Your task to perform on an android device: toggle javascript in the chrome app Image 0: 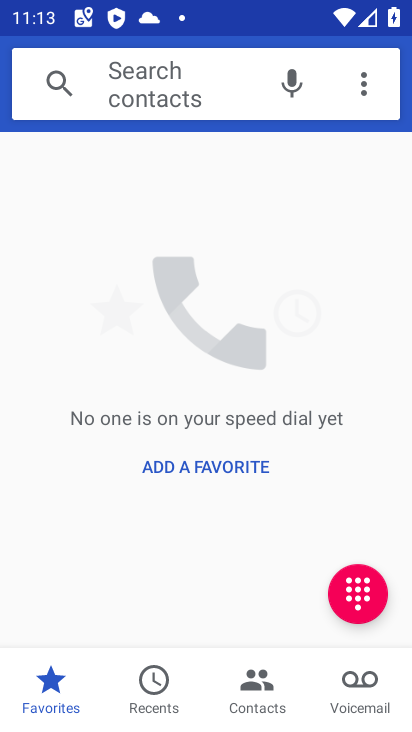
Step 0: click (368, 81)
Your task to perform on an android device: toggle javascript in the chrome app Image 1: 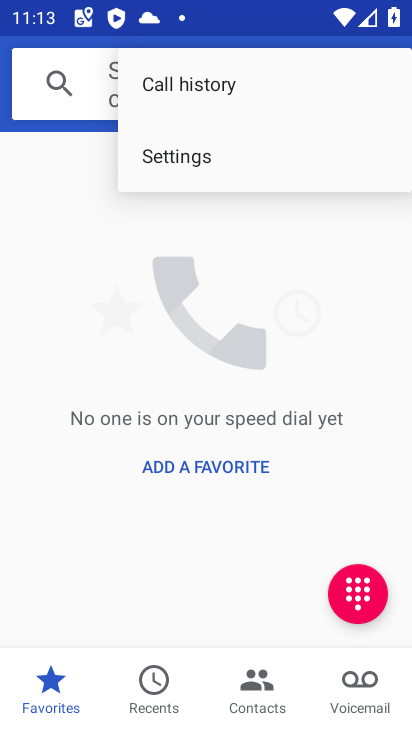
Step 1: click (358, 306)
Your task to perform on an android device: toggle javascript in the chrome app Image 2: 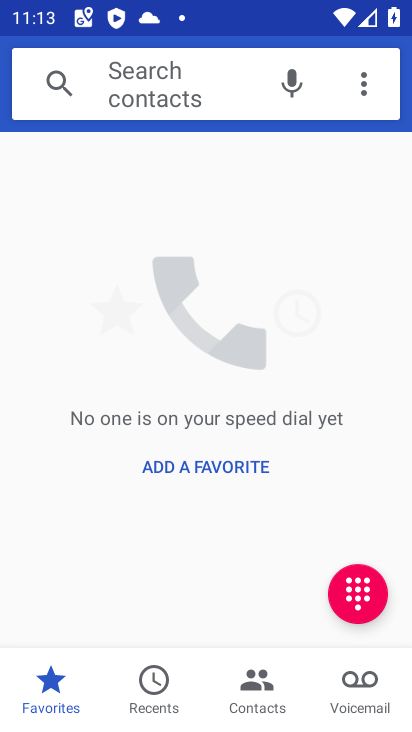
Step 2: press home button
Your task to perform on an android device: toggle javascript in the chrome app Image 3: 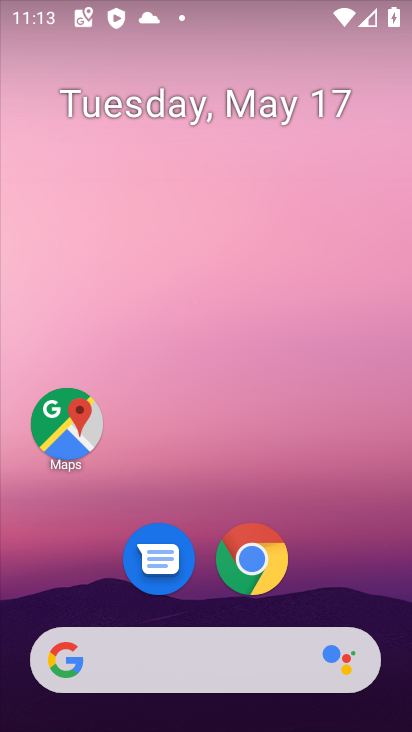
Step 3: drag from (289, 661) to (333, 123)
Your task to perform on an android device: toggle javascript in the chrome app Image 4: 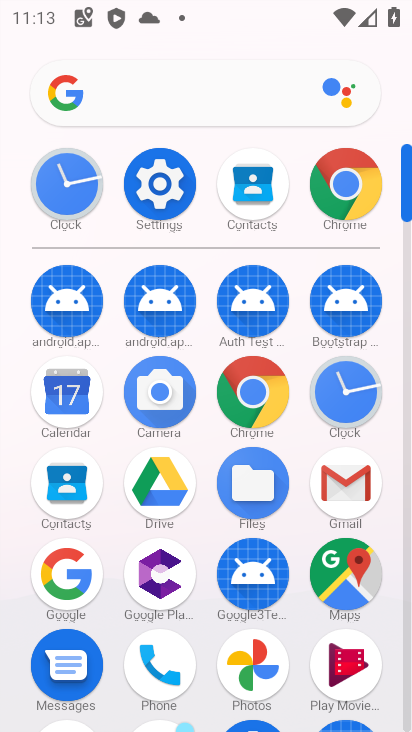
Step 4: click (360, 186)
Your task to perform on an android device: toggle javascript in the chrome app Image 5: 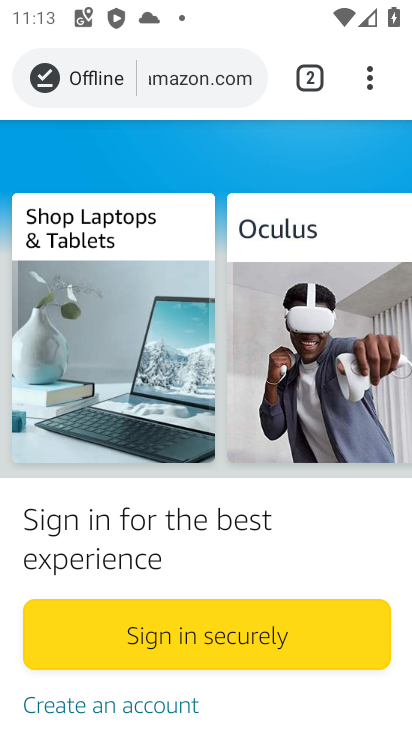
Step 5: click (365, 63)
Your task to perform on an android device: toggle javascript in the chrome app Image 6: 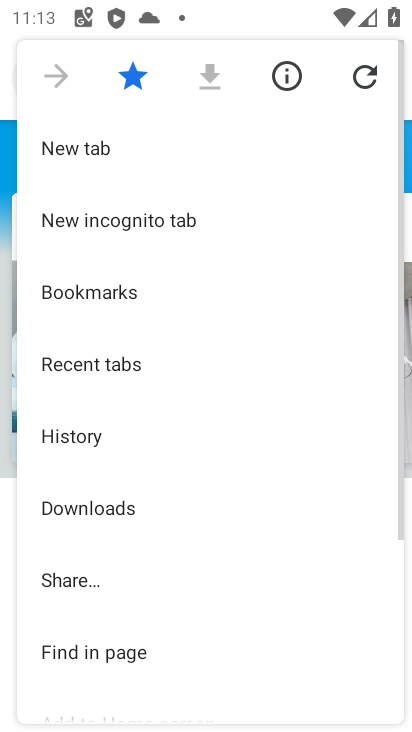
Step 6: drag from (207, 645) to (284, 264)
Your task to perform on an android device: toggle javascript in the chrome app Image 7: 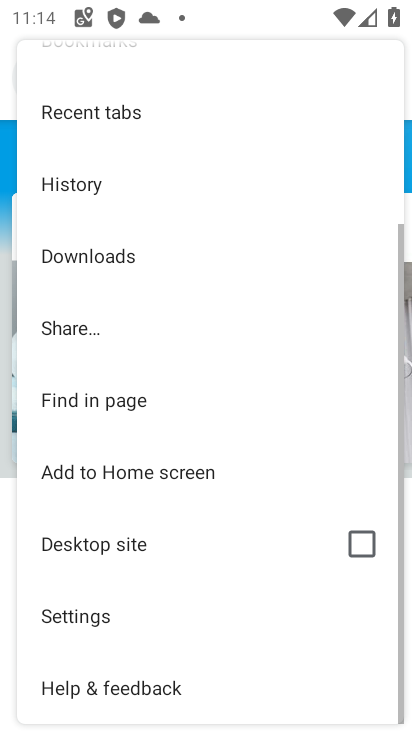
Step 7: click (122, 617)
Your task to perform on an android device: toggle javascript in the chrome app Image 8: 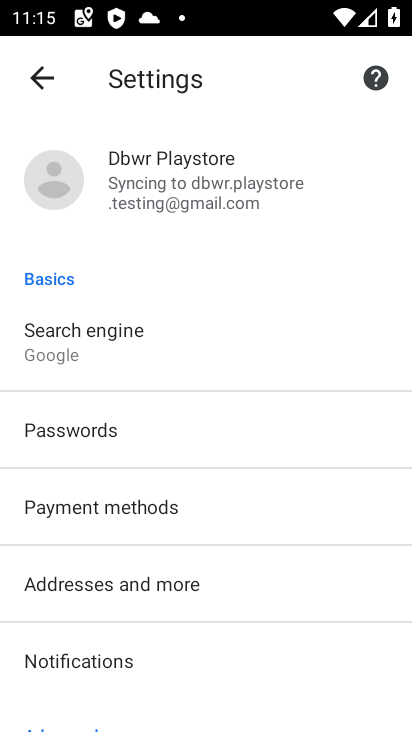
Step 8: drag from (259, 663) to (252, 113)
Your task to perform on an android device: toggle javascript in the chrome app Image 9: 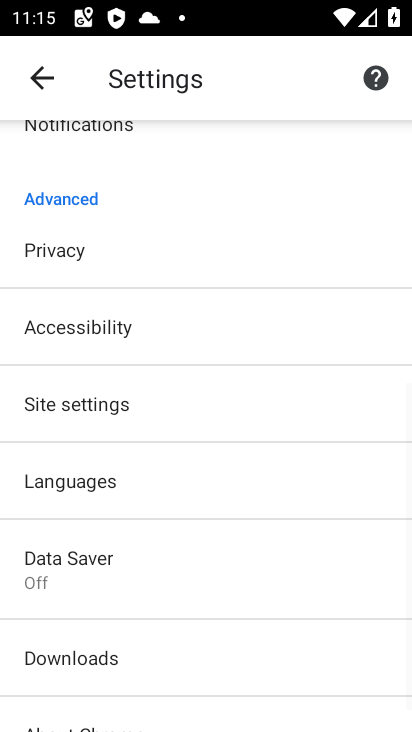
Step 9: click (133, 411)
Your task to perform on an android device: toggle javascript in the chrome app Image 10: 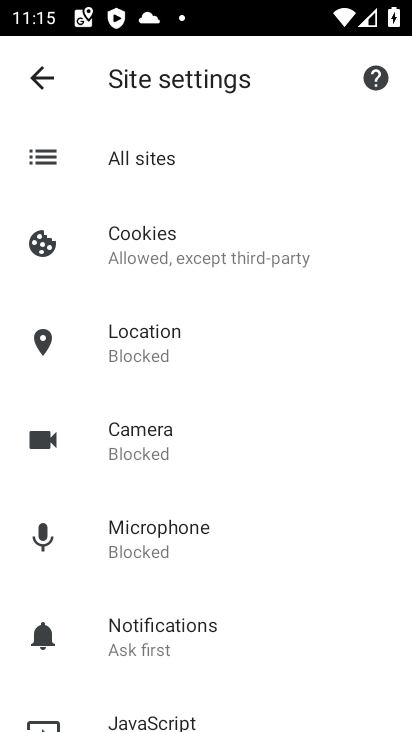
Step 10: drag from (252, 547) to (190, 277)
Your task to perform on an android device: toggle javascript in the chrome app Image 11: 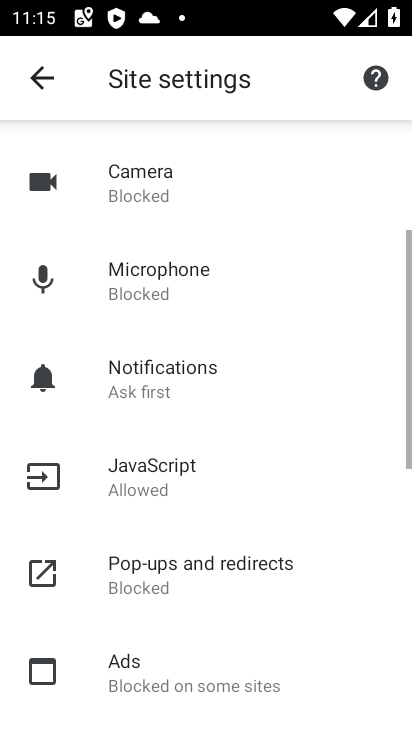
Step 11: click (188, 458)
Your task to perform on an android device: toggle javascript in the chrome app Image 12: 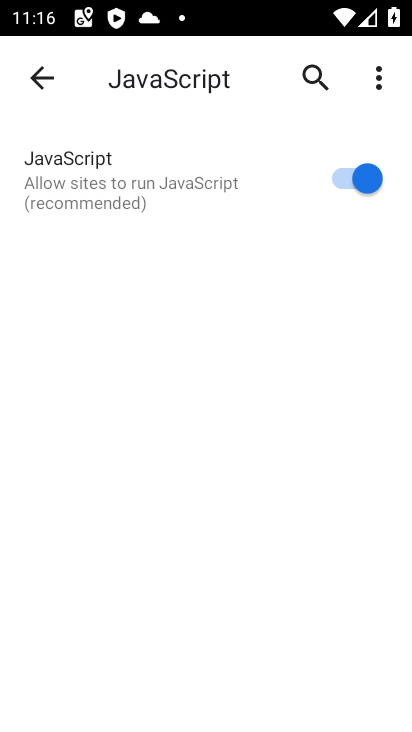
Step 12: click (349, 176)
Your task to perform on an android device: toggle javascript in the chrome app Image 13: 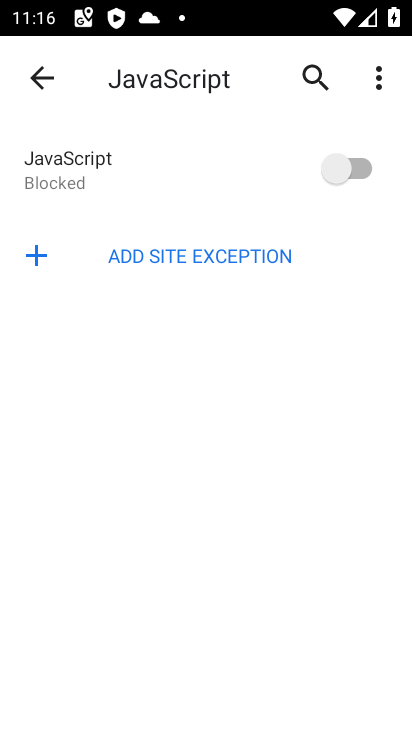
Step 13: task complete